Your task to perform on an android device: Open the map Image 0: 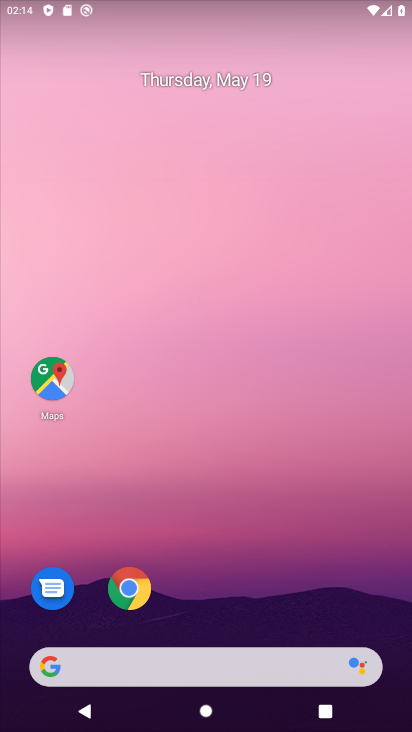
Step 0: click (61, 383)
Your task to perform on an android device: Open the map Image 1: 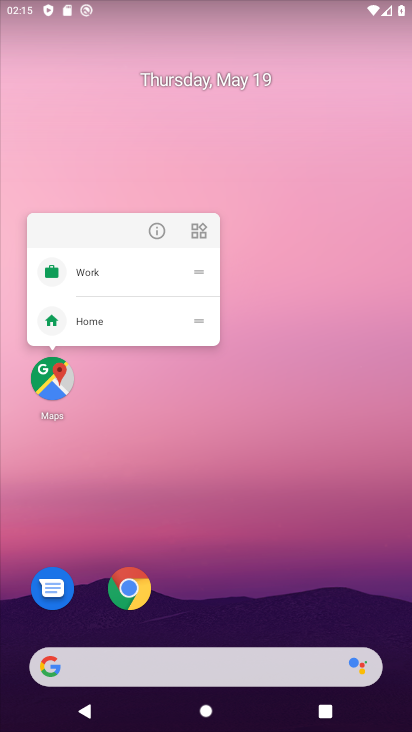
Step 1: task complete